Your task to perform on an android device: Open maps Image 0: 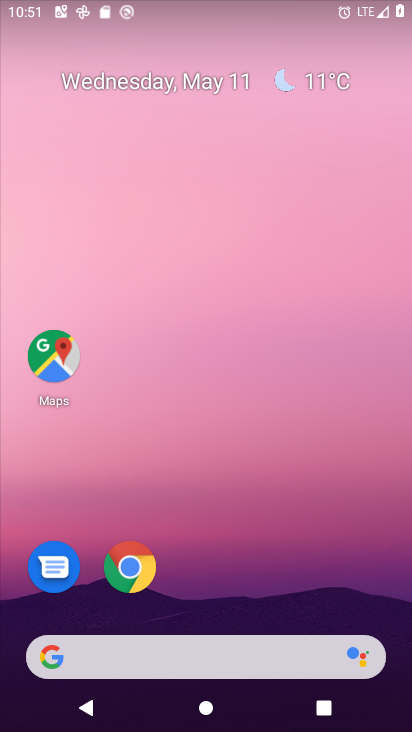
Step 0: click (57, 354)
Your task to perform on an android device: Open maps Image 1: 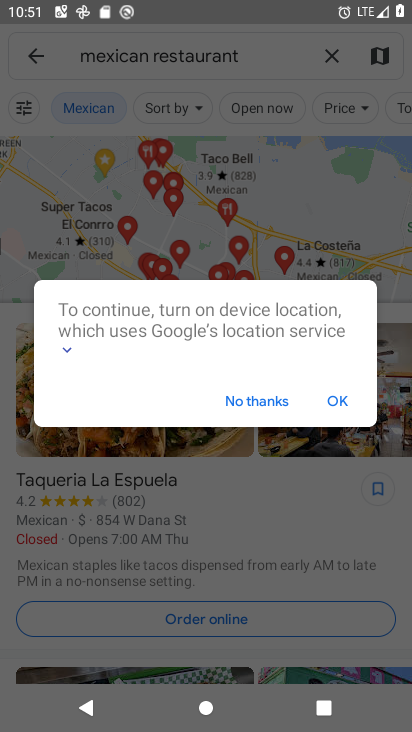
Step 1: click (268, 394)
Your task to perform on an android device: Open maps Image 2: 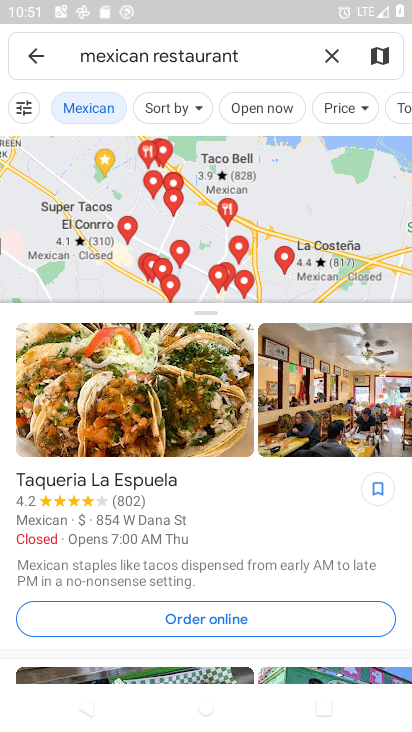
Step 2: task complete